Your task to perform on an android device: Open Google Chrome and open the bookmarks view Image 0: 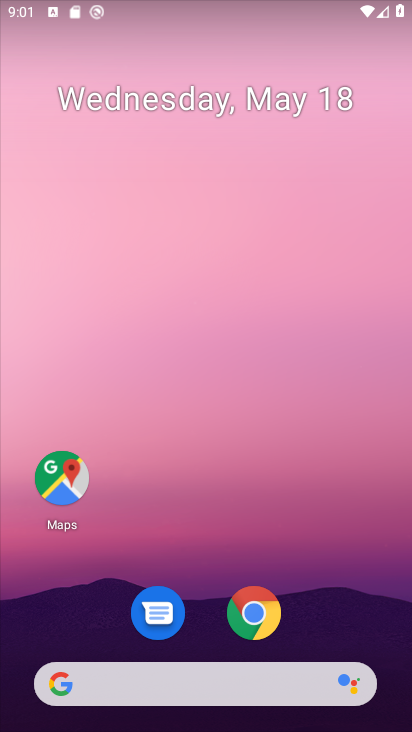
Step 0: click (187, 198)
Your task to perform on an android device: Open Google Chrome and open the bookmarks view Image 1: 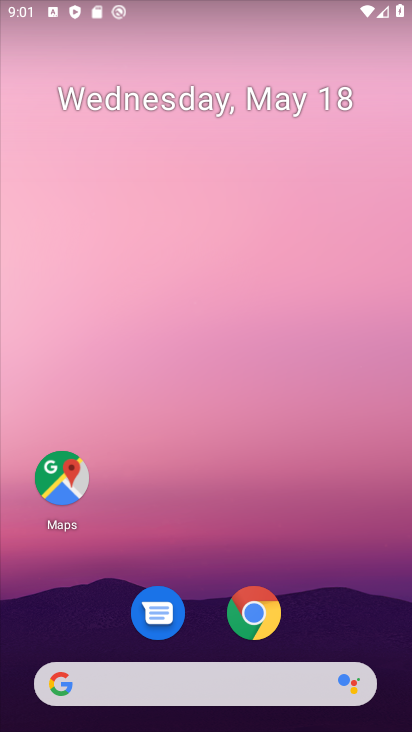
Step 1: click (264, 621)
Your task to perform on an android device: Open Google Chrome and open the bookmarks view Image 2: 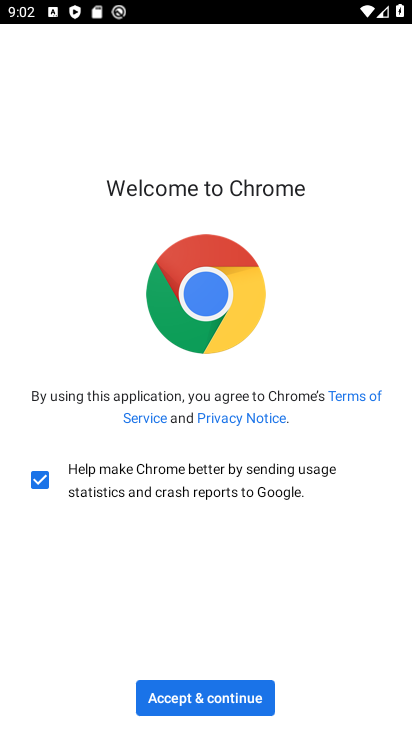
Step 2: click (190, 674)
Your task to perform on an android device: Open Google Chrome and open the bookmarks view Image 3: 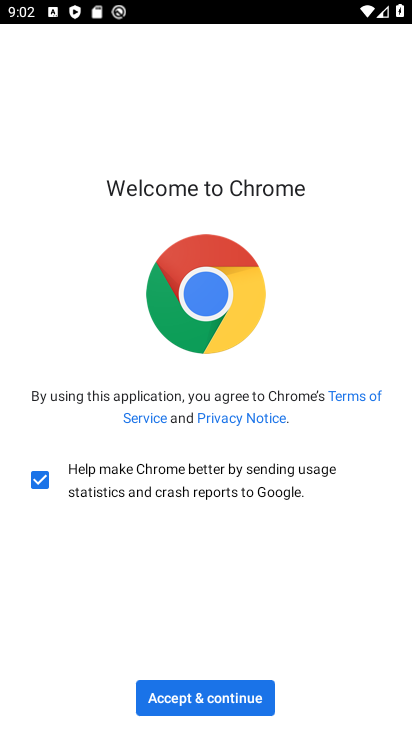
Step 3: click (190, 689)
Your task to perform on an android device: Open Google Chrome and open the bookmarks view Image 4: 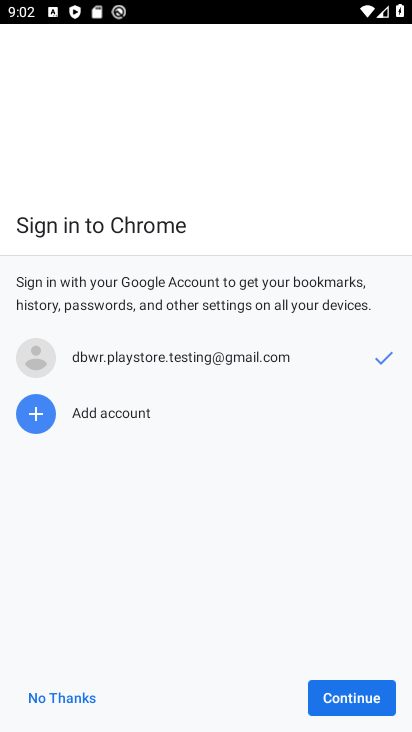
Step 4: click (381, 707)
Your task to perform on an android device: Open Google Chrome and open the bookmarks view Image 5: 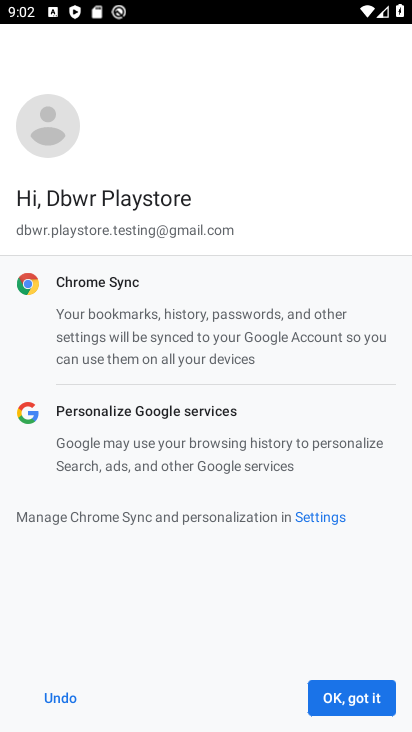
Step 5: click (378, 707)
Your task to perform on an android device: Open Google Chrome and open the bookmarks view Image 6: 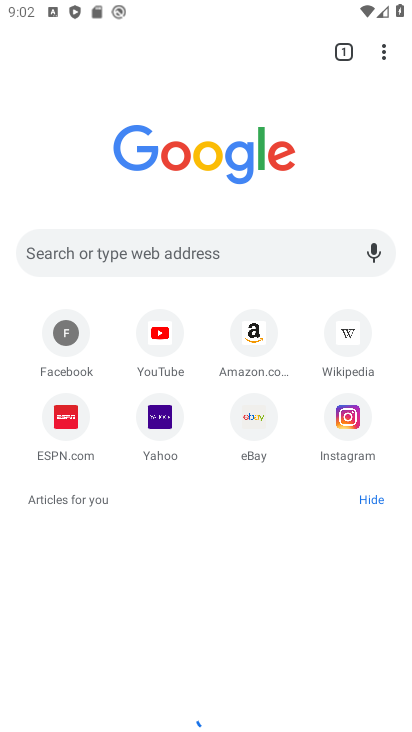
Step 6: drag from (384, 48) to (233, 197)
Your task to perform on an android device: Open Google Chrome and open the bookmarks view Image 7: 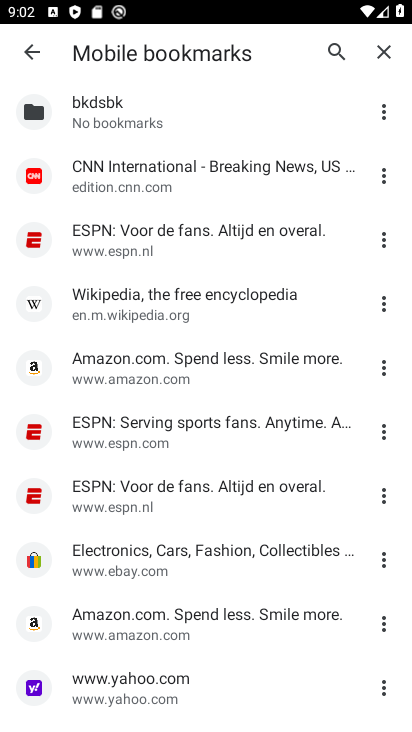
Step 7: click (181, 159)
Your task to perform on an android device: Open Google Chrome and open the bookmarks view Image 8: 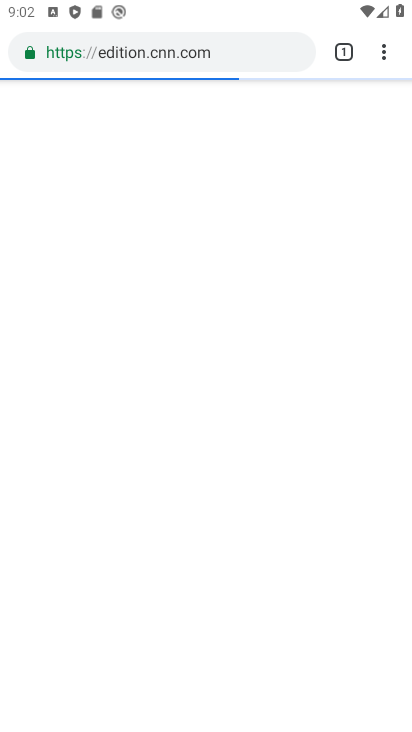
Step 8: task complete